Your task to perform on an android device: all mails in gmail Image 0: 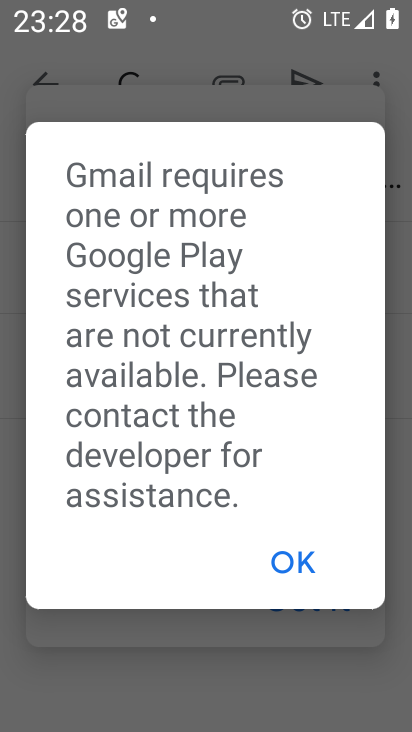
Step 0: press home button
Your task to perform on an android device: all mails in gmail Image 1: 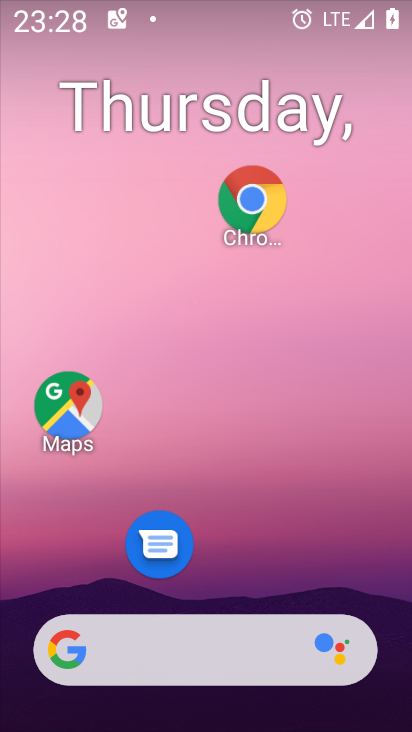
Step 1: drag from (251, 593) to (254, 73)
Your task to perform on an android device: all mails in gmail Image 2: 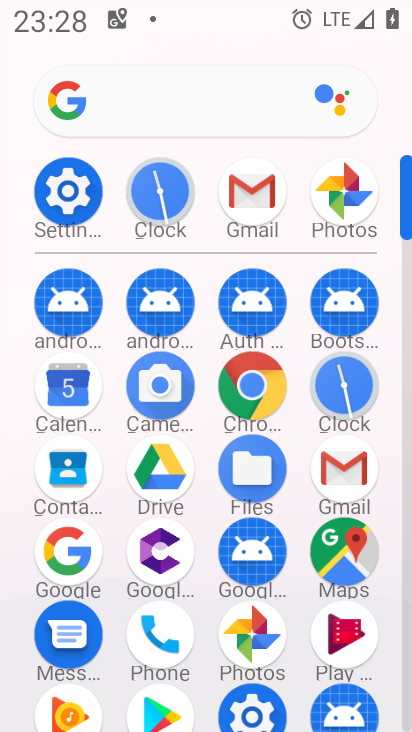
Step 2: click (243, 184)
Your task to perform on an android device: all mails in gmail Image 3: 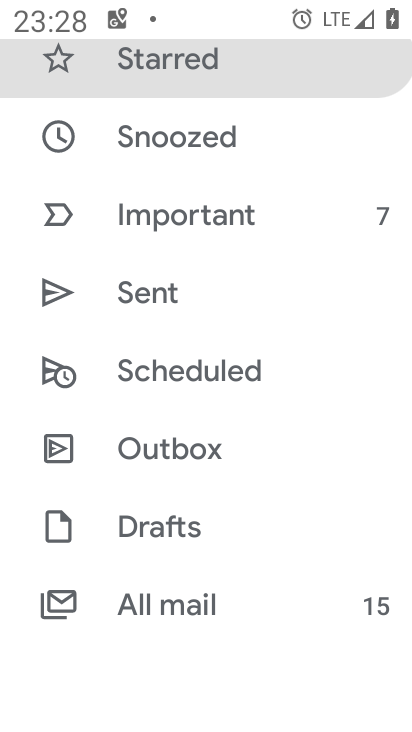
Step 3: click (156, 588)
Your task to perform on an android device: all mails in gmail Image 4: 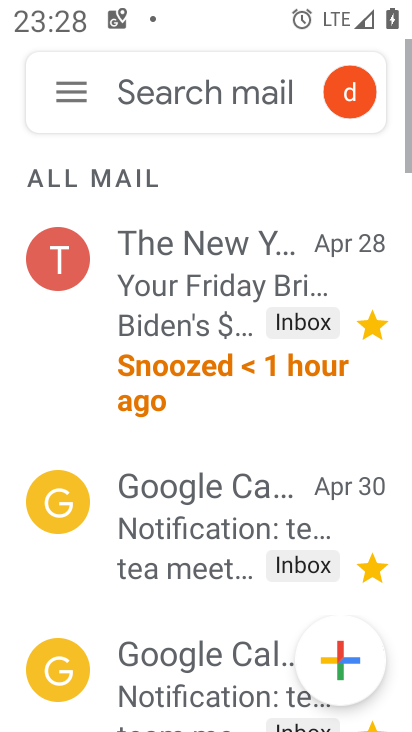
Step 4: task complete